Your task to perform on an android device: refresh tabs in the chrome app Image 0: 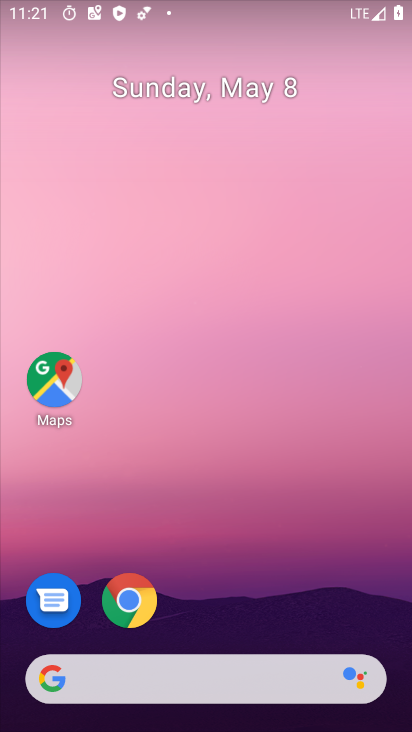
Step 0: click (138, 601)
Your task to perform on an android device: refresh tabs in the chrome app Image 1: 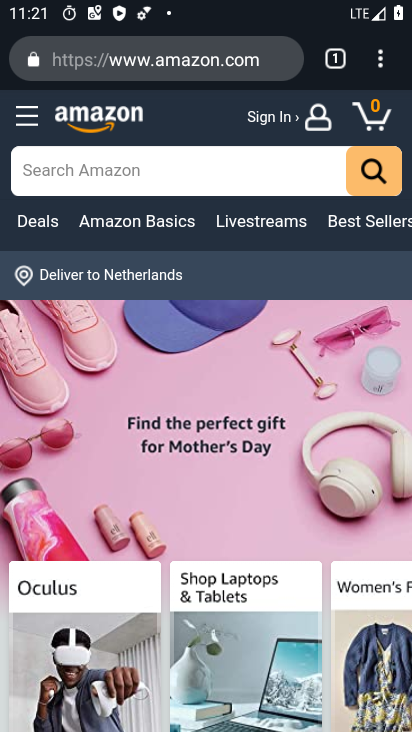
Step 1: click (366, 57)
Your task to perform on an android device: refresh tabs in the chrome app Image 2: 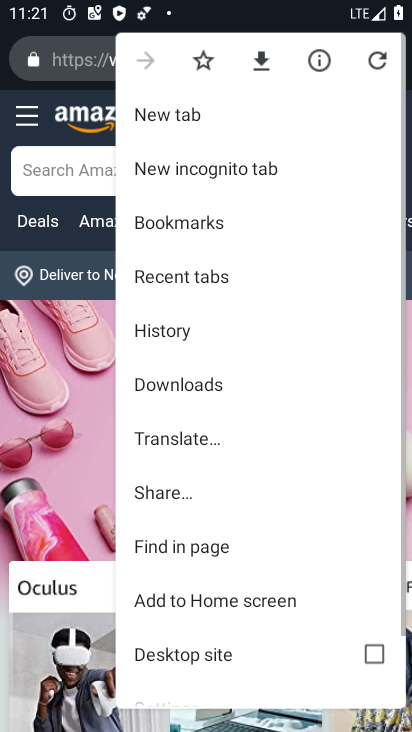
Step 2: click (373, 59)
Your task to perform on an android device: refresh tabs in the chrome app Image 3: 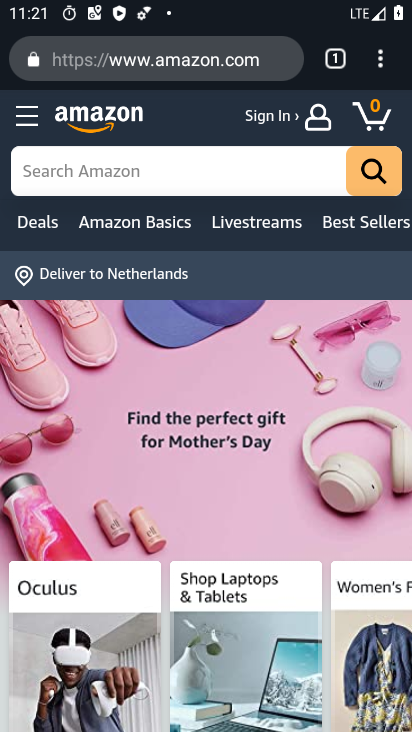
Step 3: task complete